Your task to perform on an android device: Go to location settings Image 0: 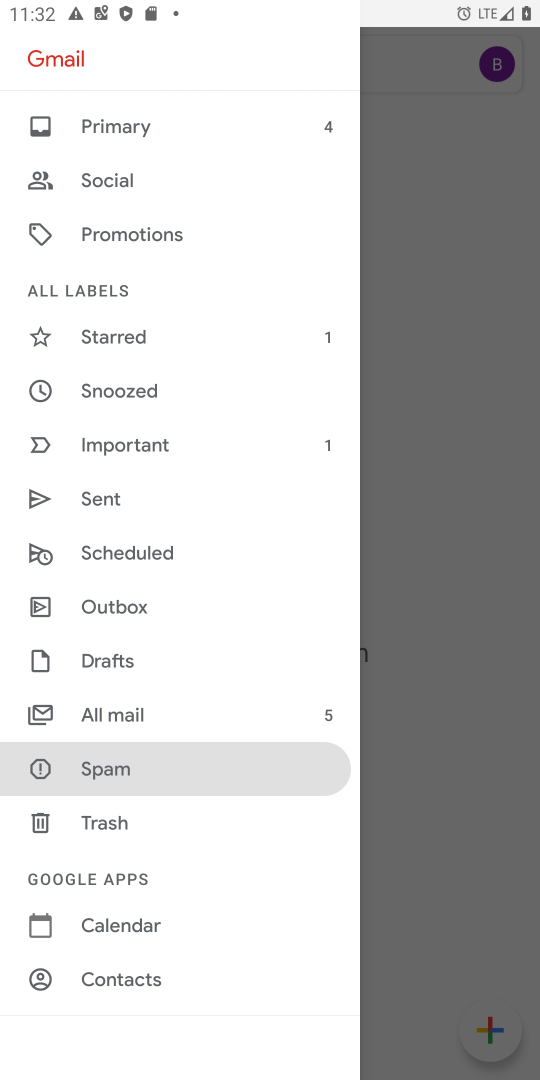
Step 0: press home button
Your task to perform on an android device: Go to location settings Image 1: 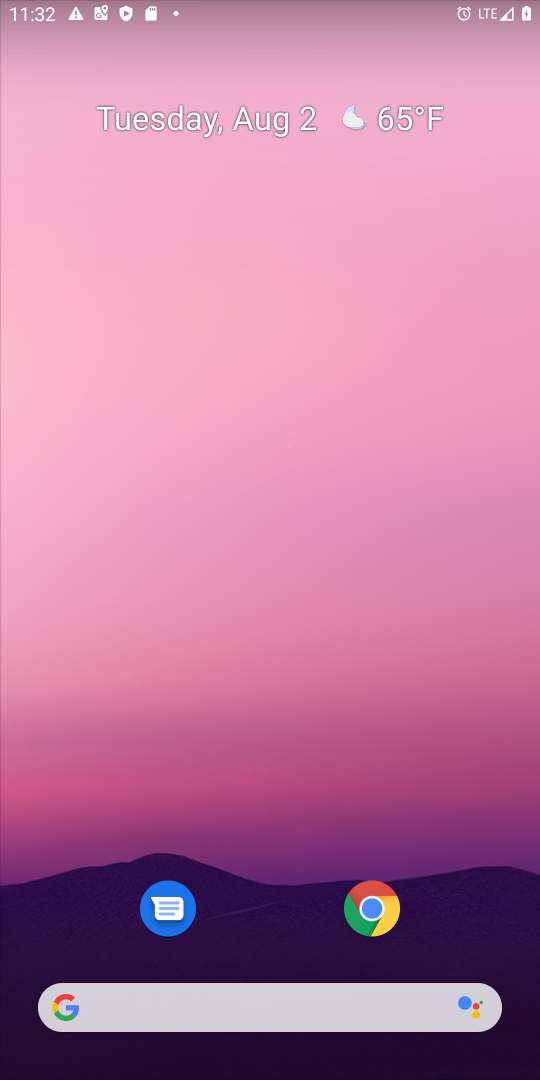
Step 1: drag from (286, 895) to (334, 127)
Your task to perform on an android device: Go to location settings Image 2: 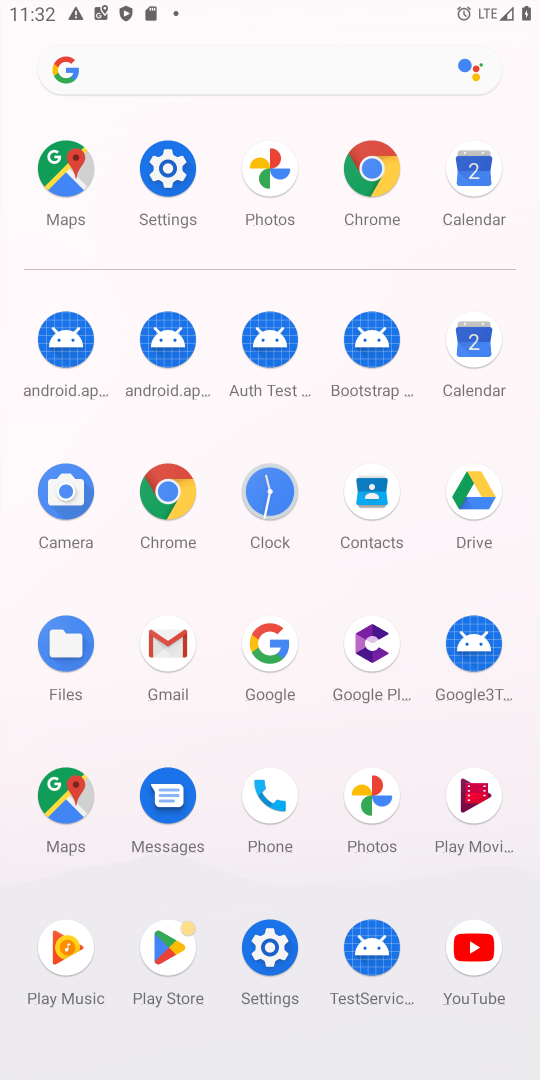
Step 2: click (283, 956)
Your task to perform on an android device: Go to location settings Image 3: 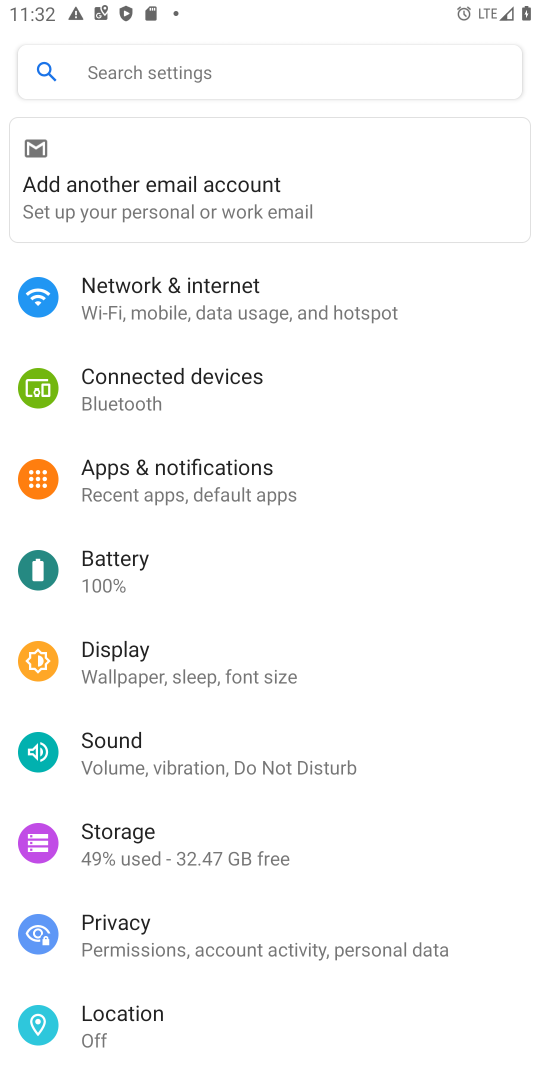
Step 3: click (230, 1030)
Your task to perform on an android device: Go to location settings Image 4: 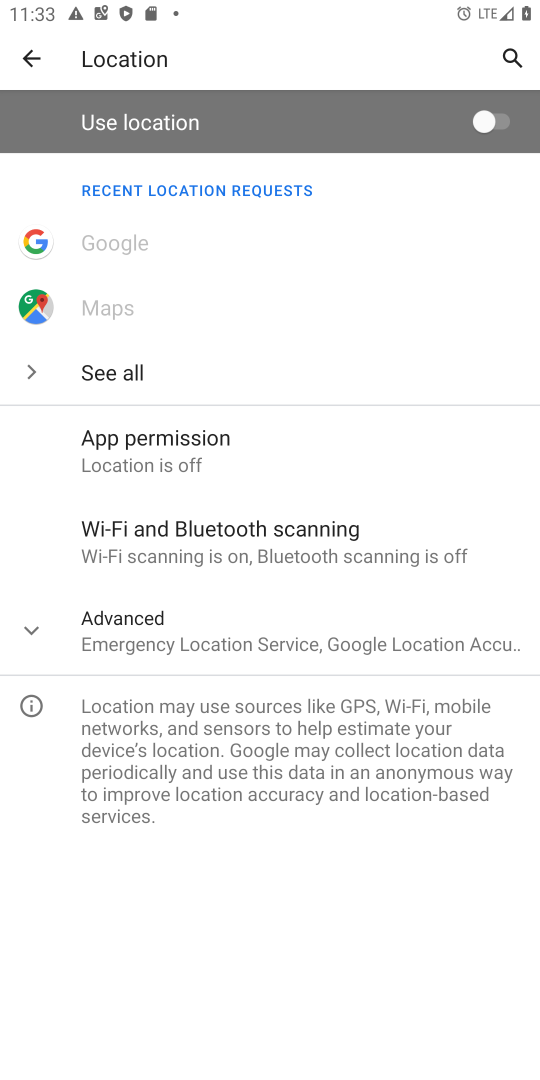
Step 4: task complete